Your task to perform on an android device: Check the news Image 0: 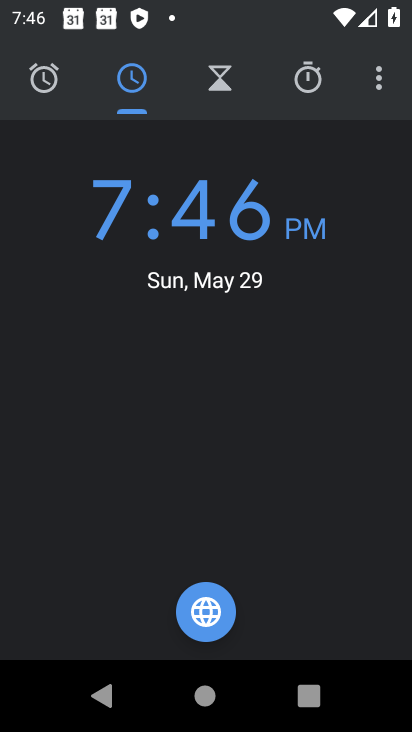
Step 0: press home button
Your task to perform on an android device: Check the news Image 1: 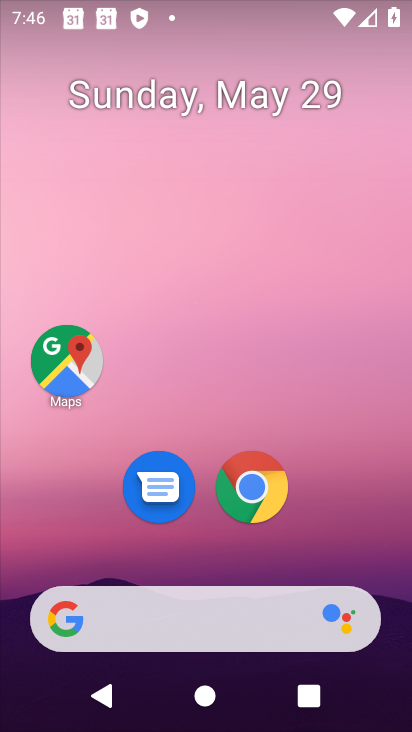
Step 1: click (267, 492)
Your task to perform on an android device: Check the news Image 2: 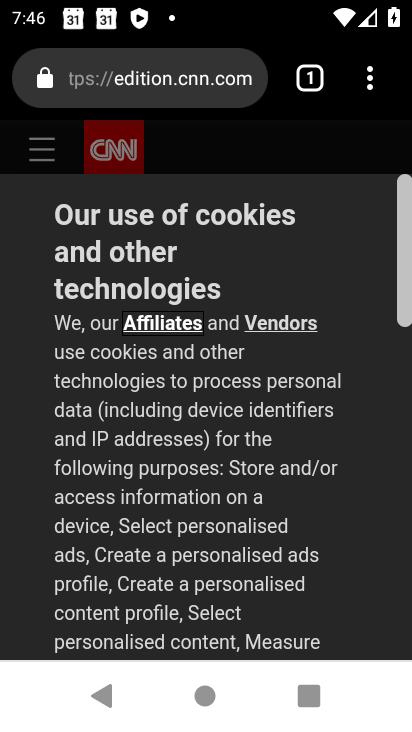
Step 2: click (203, 68)
Your task to perform on an android device: Check the news Image 3: 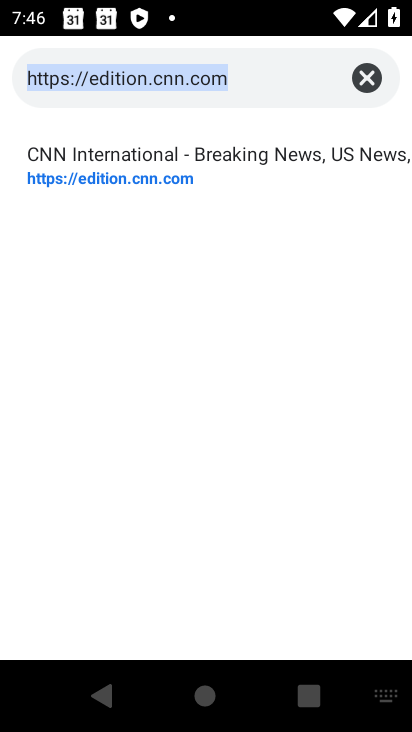
Step 3: type "news"
Your task to perform on an android device: Check the news Image 4: 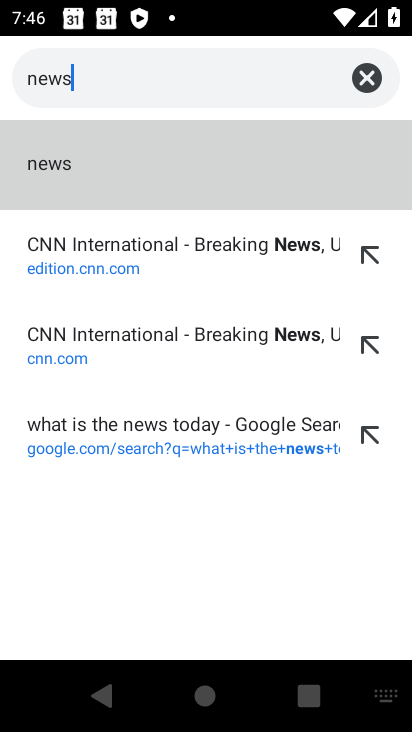
Step 4: click (342, 156)
Your task to perform on an android device: Check the news Image 5: 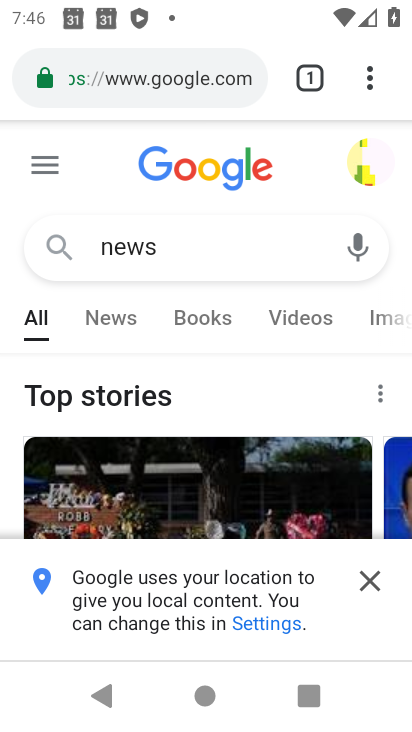
Step 5: click (132, 319)
Your task to perform on an android device: Check the news Image 6: 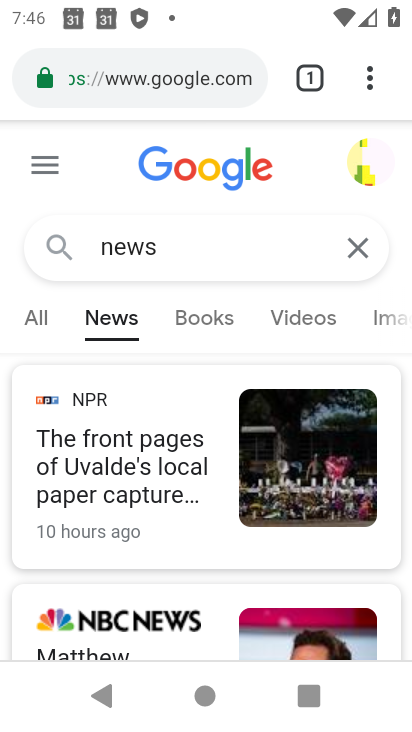
Step 6: task complete